Your task to perform on an android device: Open Google Maps Image 0: 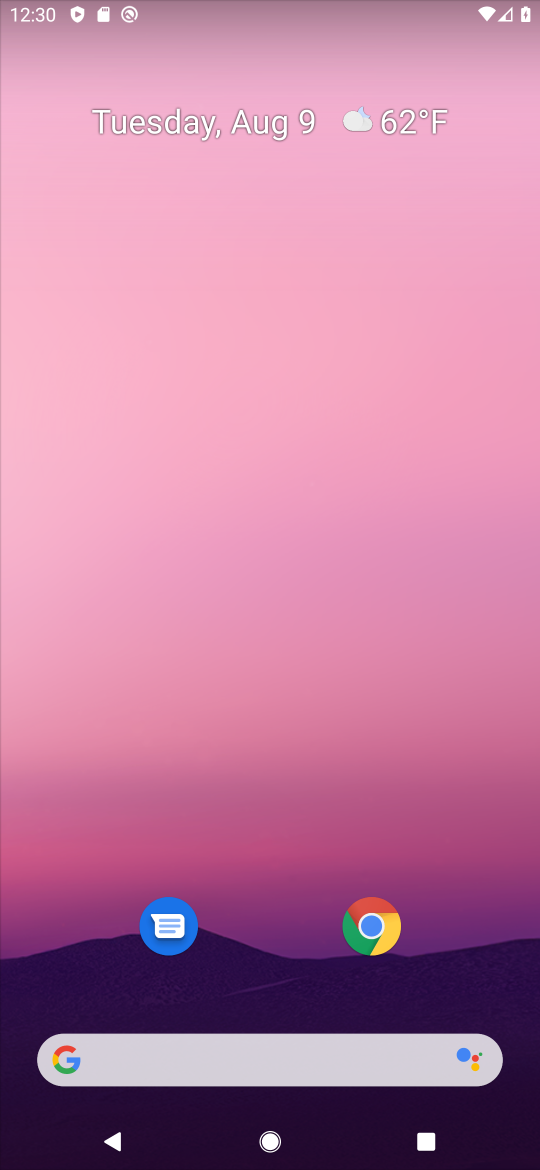
Step 0: drag from (30, 1159) to (336, 60)
Your task to perform on an android device: Open Google Maps Image 1: 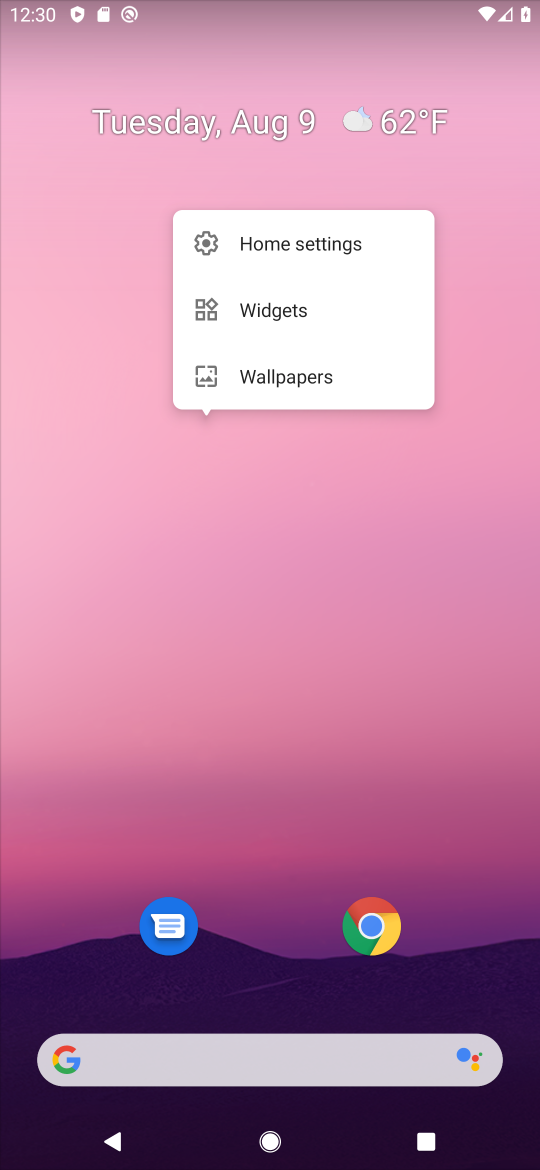
Step 1: click (490, 692)
Your task to perform on an android device: Open Google Maps Image 2: 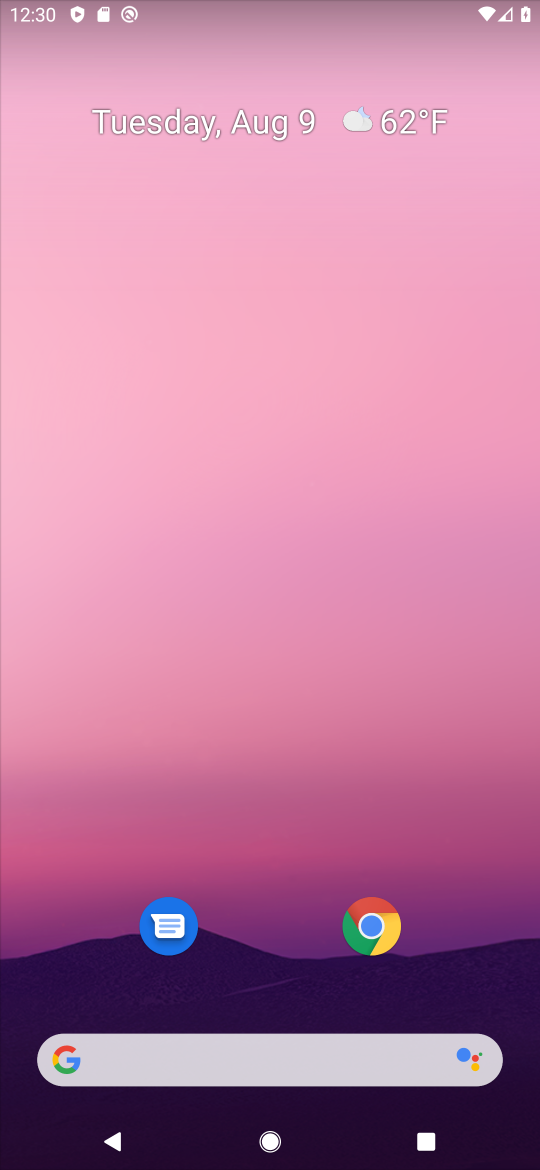
Step 2: drag from (5, 994) to (272, 205)
Your task to perform on an android device: Open Google Maps Image 3: 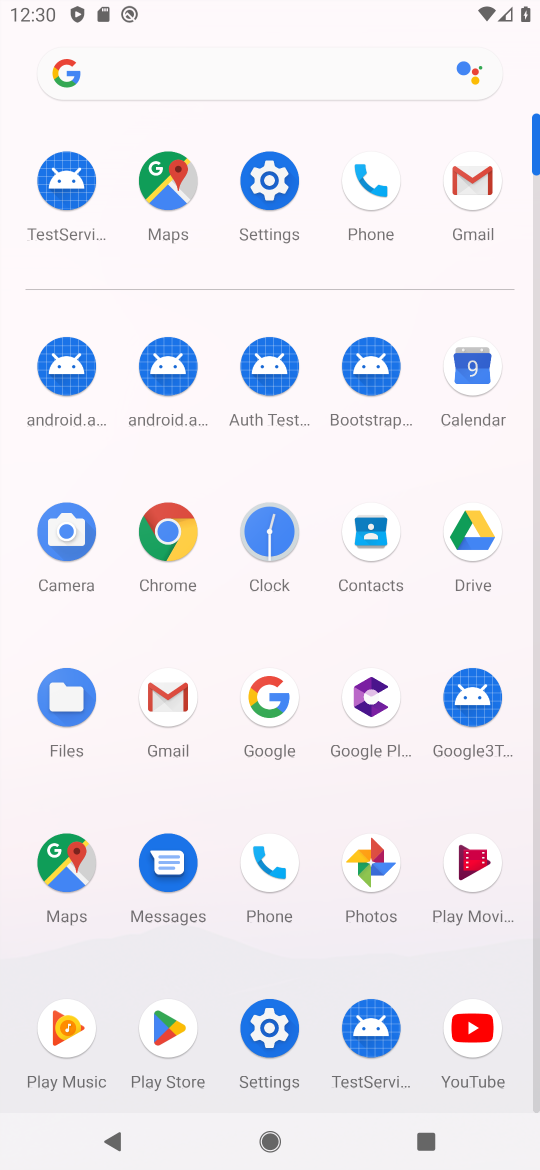
Step 3: click (74, 855)
Your task to perform on an android device: Open Google Maps Image 4: 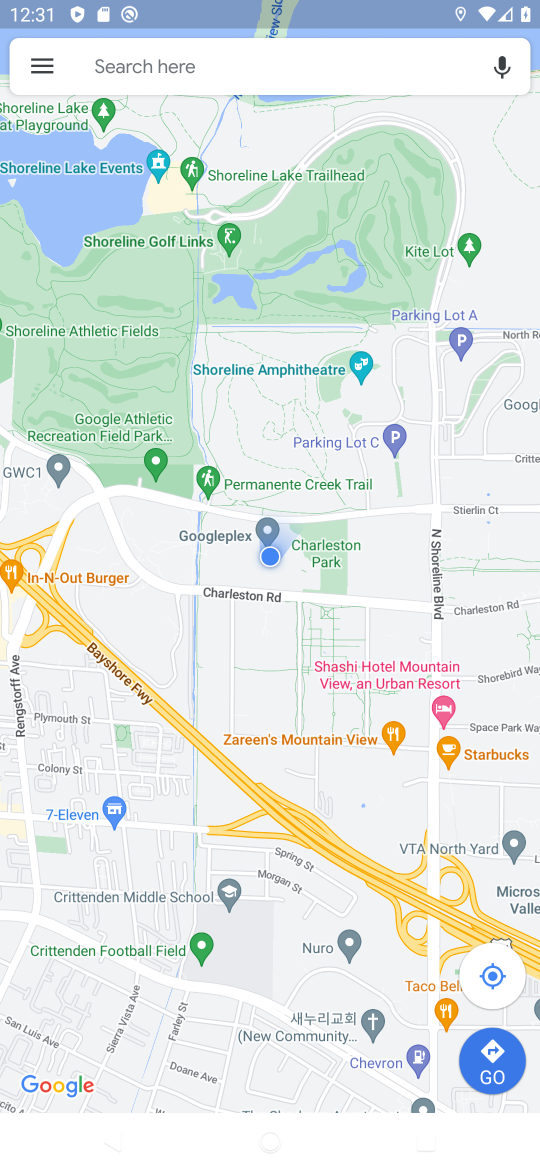
Step 4: task complete